Your task to perform on an android device: When is my next meeting? Image 0: 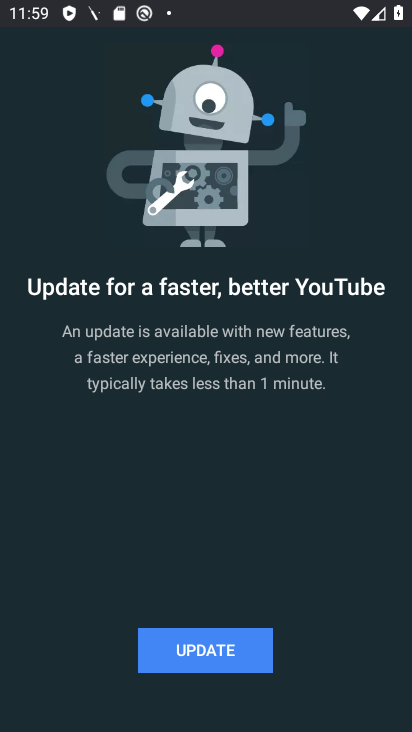
Step 0: press back button
Your task to perform on an android device: When is my next meeting? Image 1: 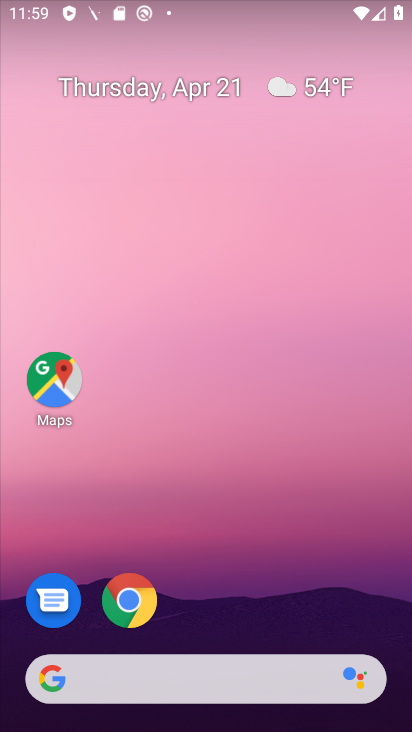
Step 1: drag from (384, 459) to (377, 189)
Your task to perform on an android device: When is my next meeting? Image 2: 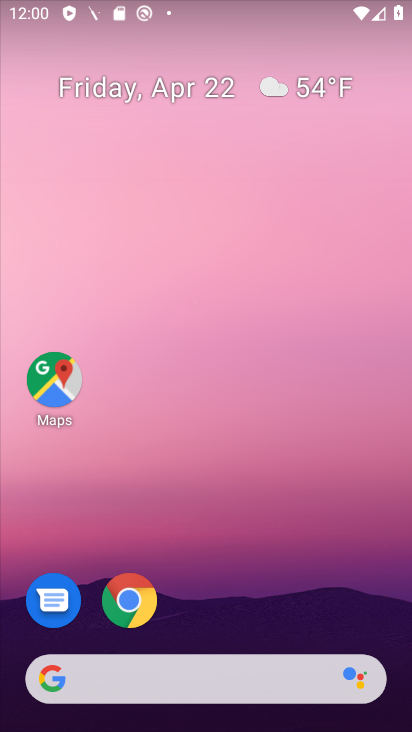
Step 2: click (379, 151)
Your task to perform on an android device: When is my next meeting? Image 3: 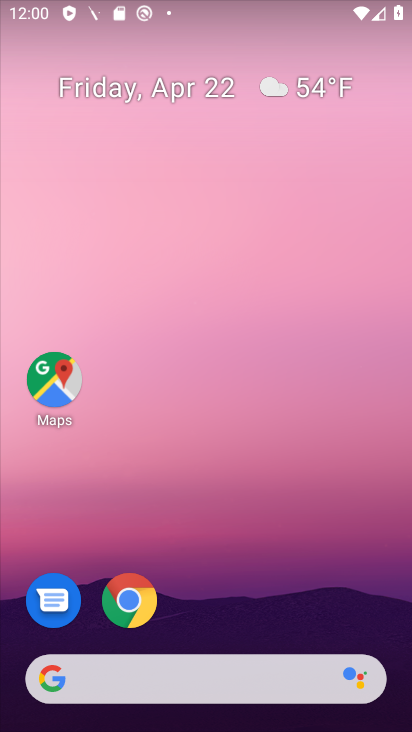
Step 3: click (348, 209)
Your task to perform on an android device: When is my next meeting? Image 4: 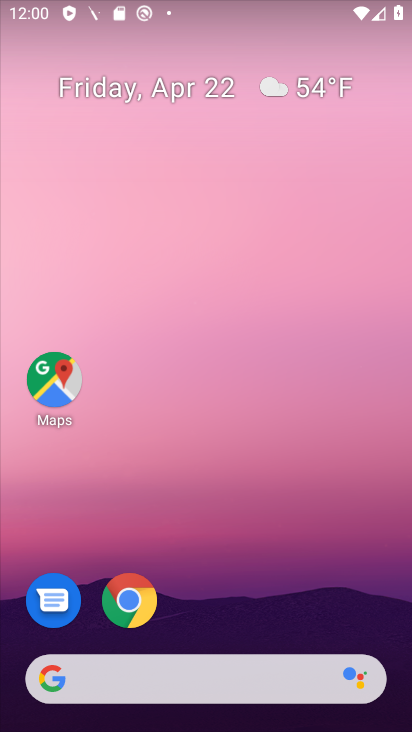
Step 4: click (351, 97)
Your task to perform on an android device: When is my next meeting? Image 5: 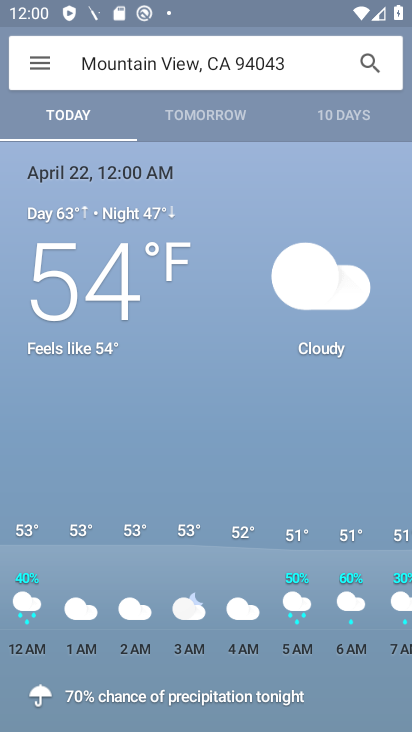
Step 5: press back button
Your task to perform on an android device: When is my next meeting? Image 6: 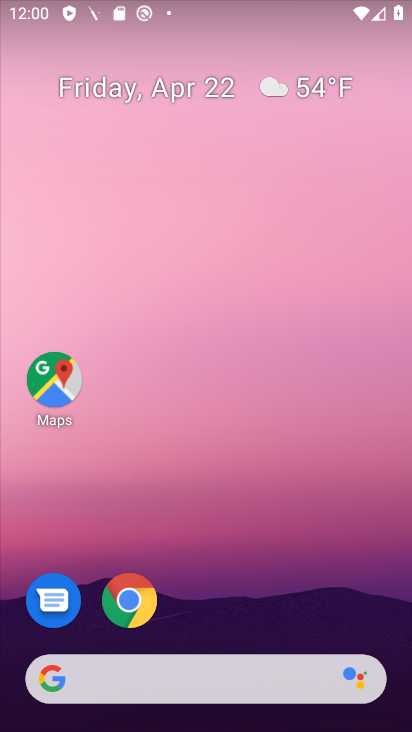
Step 6: drag from (351, 210) to (345, 171)
Your task to perform on an android device: When is my next meeting? Image 7: 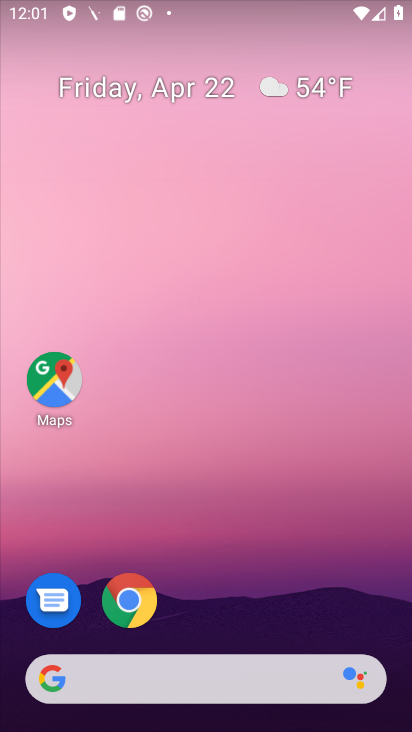
Step 7: drag from (389, 590) to (371, 115)
Your task to perform on an android device: When is my next meeting? Image 8: 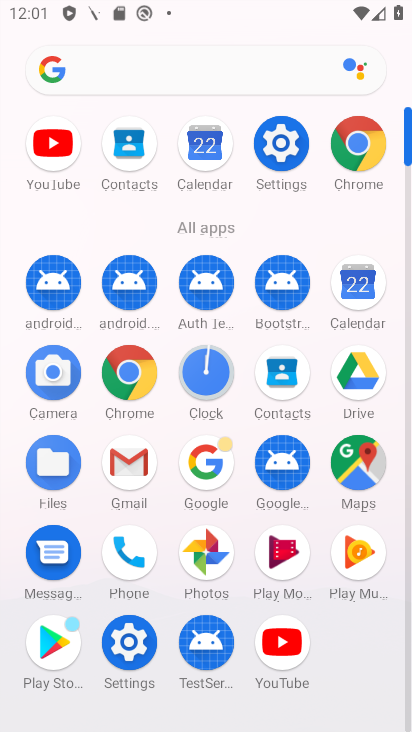
Step 8: click (355, 283)
Your task to perform on an android device: When is my next meeting? Image 9: 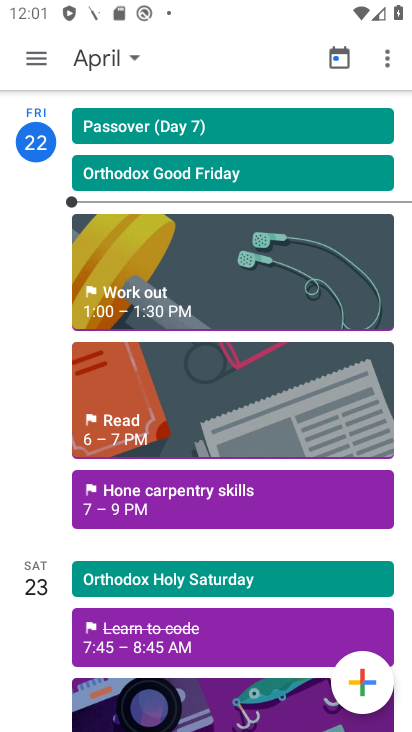
Step 9: click (38, 59)
Your task to perform on an android device: When is my next meeting? Image 10: 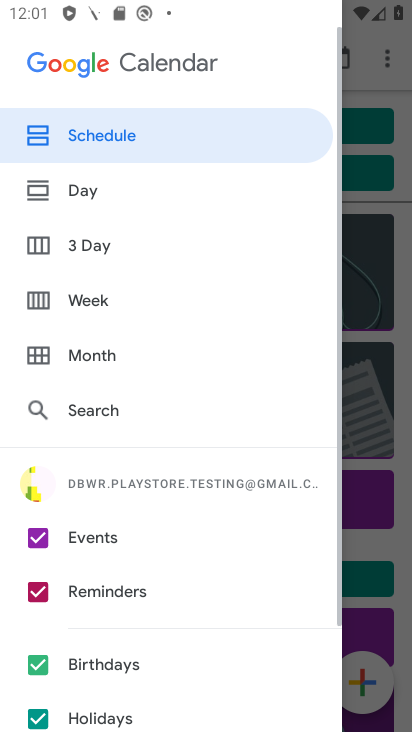
Step 10: click (95, 140)
Your task to perform on an android device: When is my next meeting? Image 11: 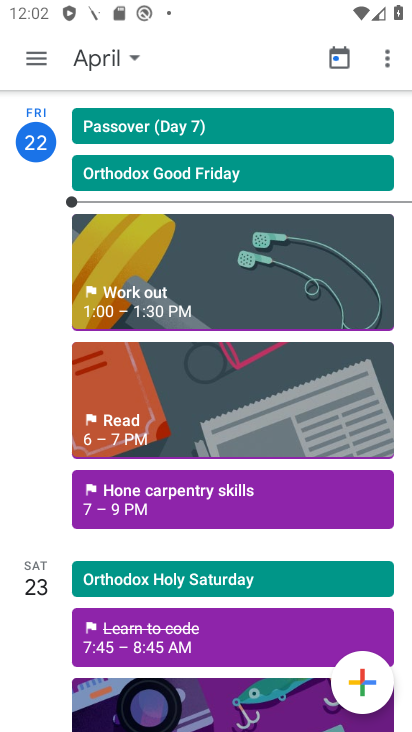
Step 11: click (38, 50)
Your task to perform on an android device: When is my next meeting? Image 12: 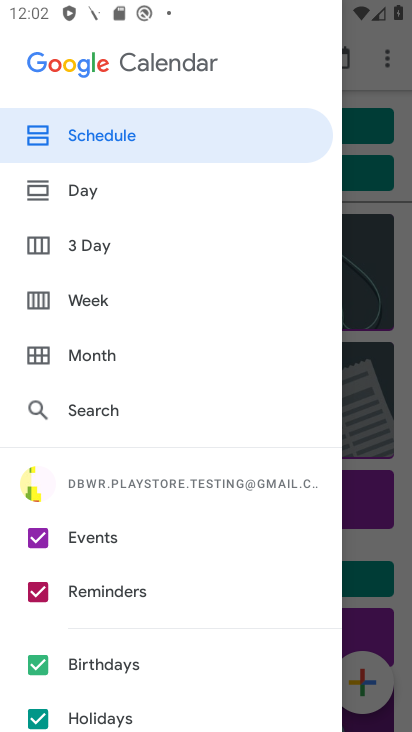
Step 12: drag from (237, 668) to (214, 334)
Your task to perform on an android device: When is my next meeting? Image 13: 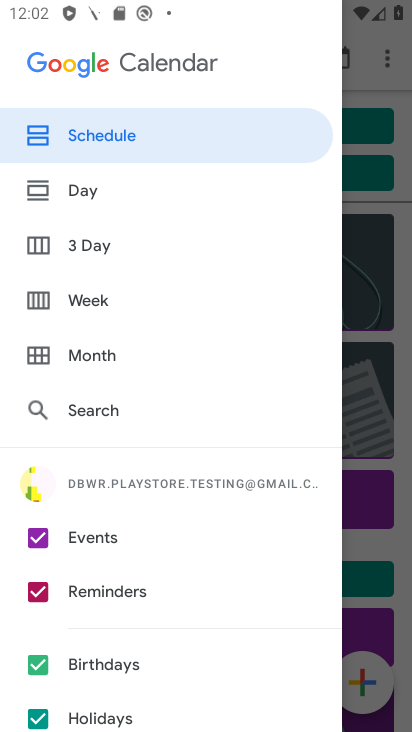
Step 13: drag from (186, 531) to (204, 336)
Your task to perform on an android device: When is my next meeting? Image 14: 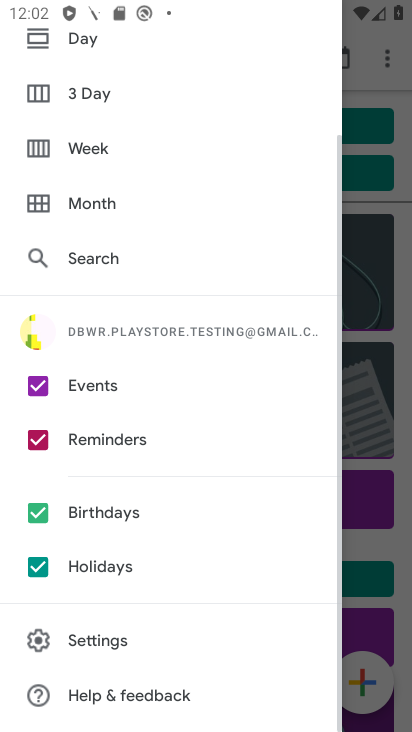
Step 14: click (32, 568)
Your task to perform on an android device: When is my next meeting? Image 15: 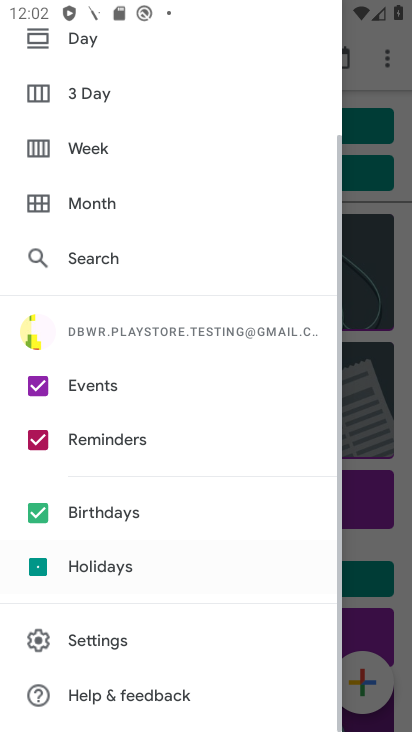
Step 15: click (40, 517)
Your task to perform on an android device: When is my next meeting? Image 16: 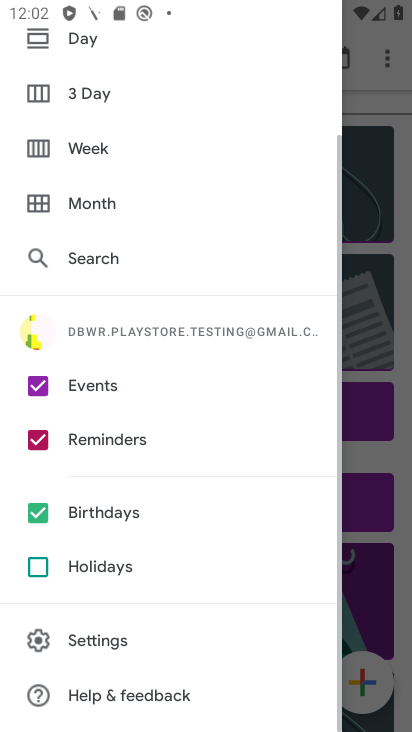
Step 16: click (35, 435)
Your task to perform on an android device: When is my next meeting? Image 17: 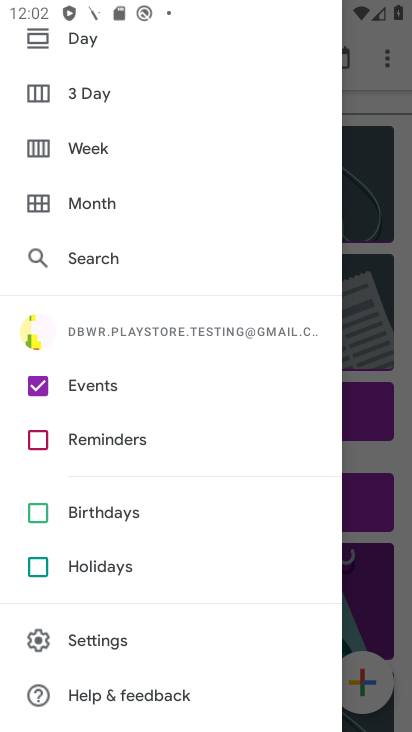
Step 17: drag from (255, 253) to (250, 593)
Your task to perform on an android device: When is my next meeting? Image 18: 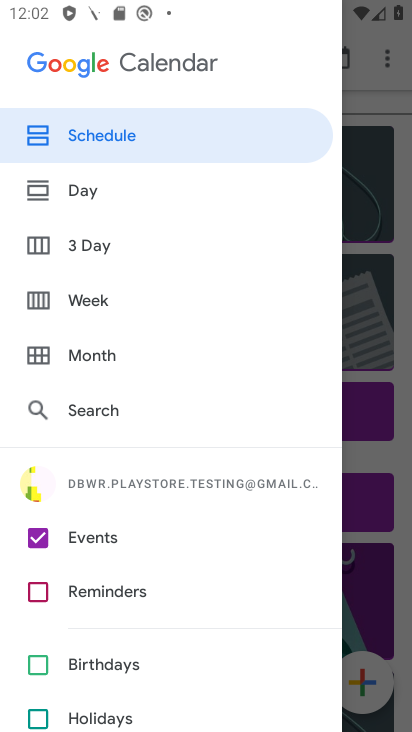
Step 18: click (76, 135)
Your task to perform on an android device: When is my next meeting? Image 19: 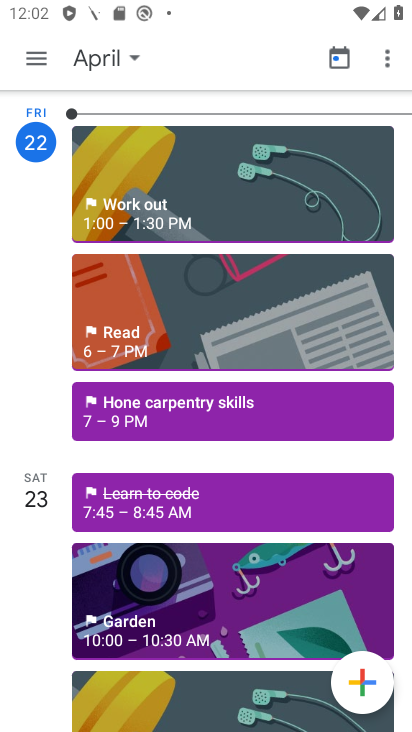
Step 19: task complete